Your task to perform on an android device: Search for Italian restaurants on Maps Image 0: 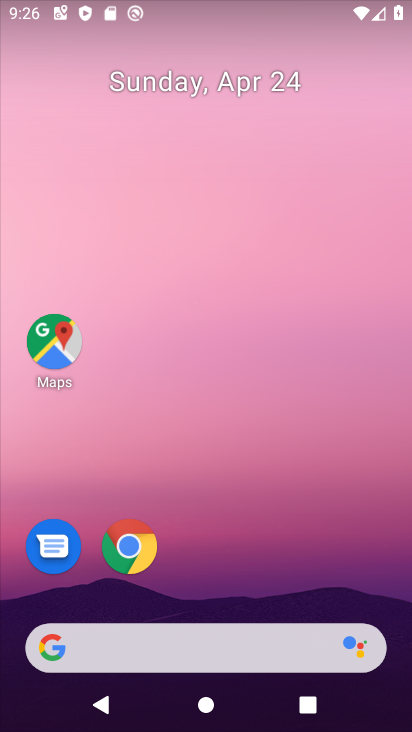
Step 0: click (60, 378)
Your task to perform on an android device: Search for Italian restaurants on Maps Image 1: 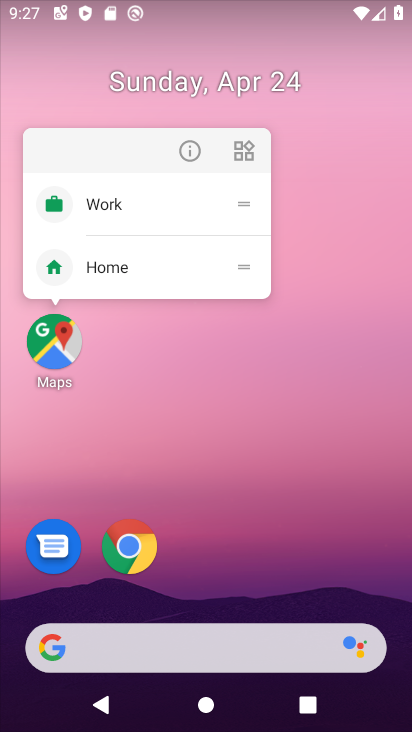
Step 1: click (60, 378)
Your task to perform on an android device: Search for Italian restaurants on Maps Image 2: 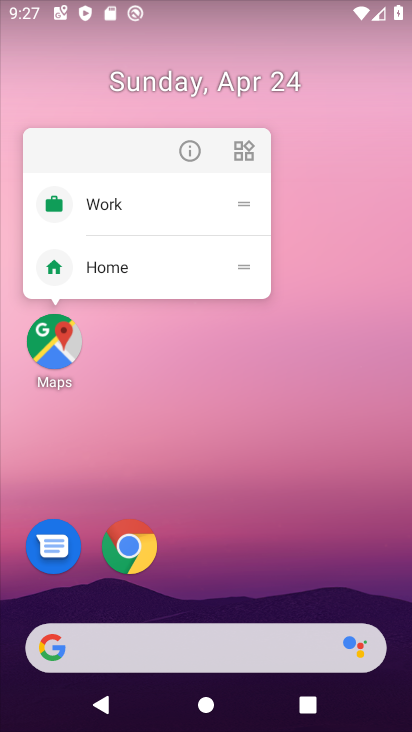
Step 2: click (60, 378)
Your task to perform on an android device: Search for Italian restaurants on Maps Image 3: 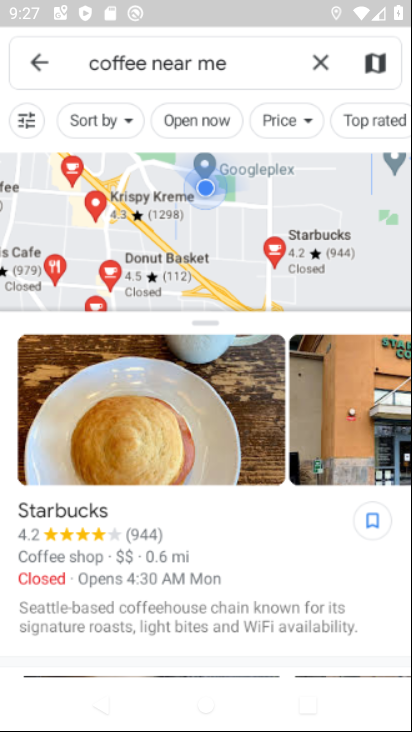
Step 3: click (324, 55)
Your task to perform on an android device: Search for Italian restaurants on Maps Image 4: 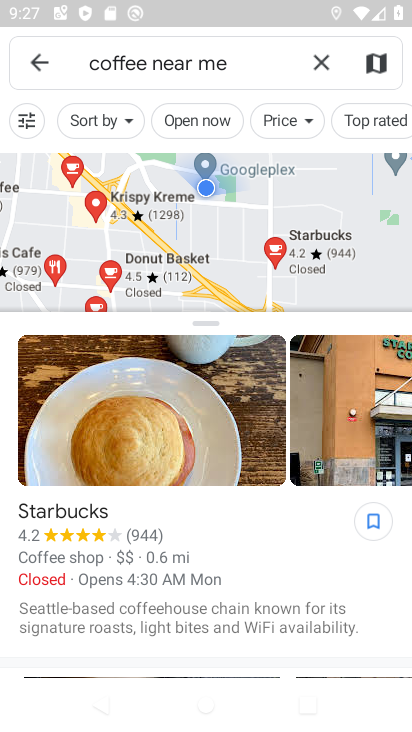
Step 4: click (318, 62)
Your task to perform on an android device: Search for Italian restaurants on Maps Image 5: 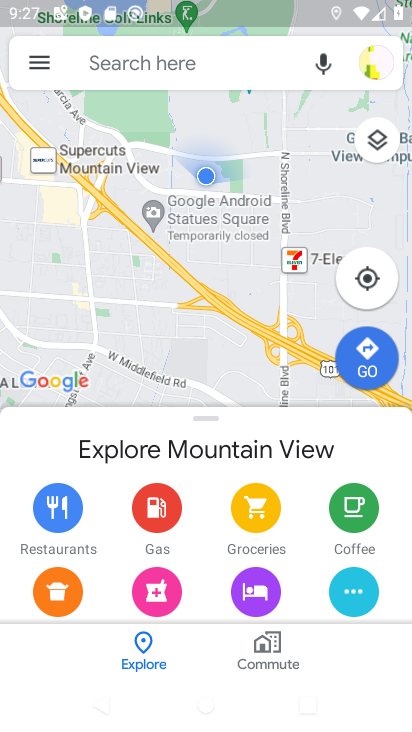
Step 5: click (213, 48)
Your task to perform on an android device: Search for Italian restaurants on Maps Image 6: 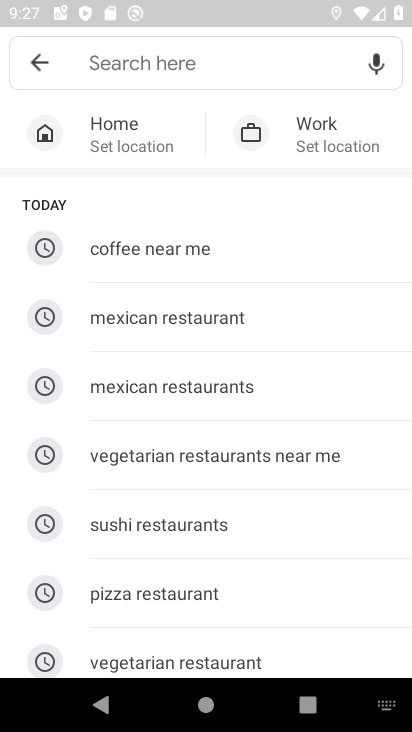
Step 6: type "italian"
Your task to perform on an android device: Search for Italian restaurants on Maps Image 7: 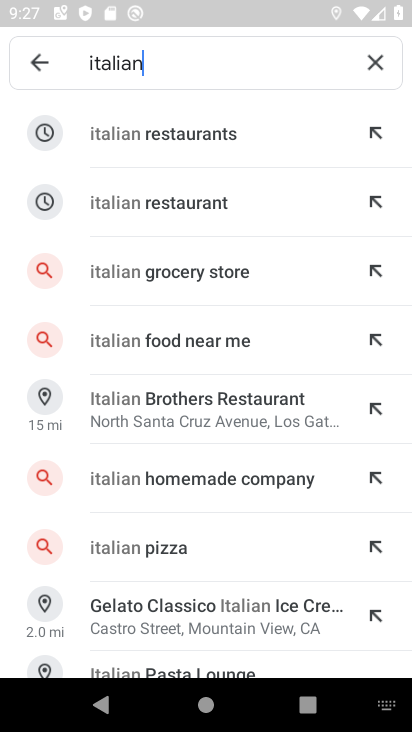
Step 7: click (223, 132)
Your task to perform on an android device: Search for Italian restaurants on Maps Image 8: 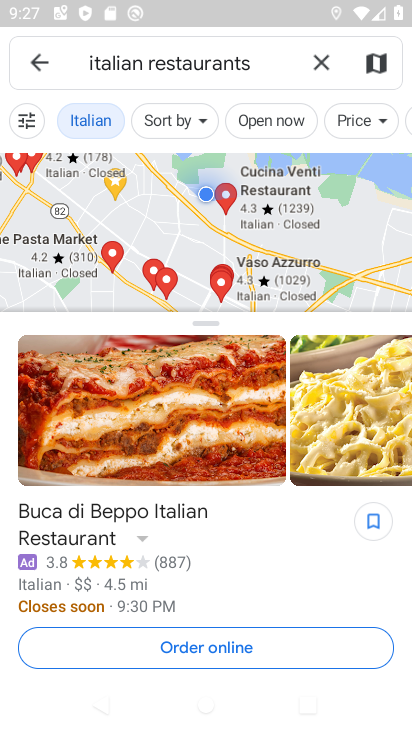
Step 8: task complete